Your task to perform on an android device: Search for hotels in San Diego Image 0: 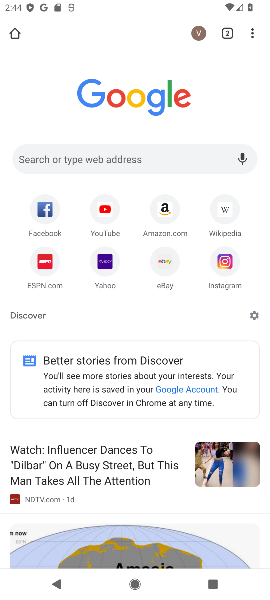
Step 0: press home button
Your task to perform on an android device: Search for hotels in San Diego Image 1: 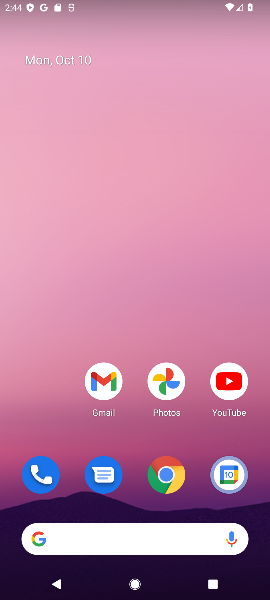
Step 1: drag from (152, 528) to (248, 39)
Your task to perform on an android device: Search for hotels in San Diego Image 2: 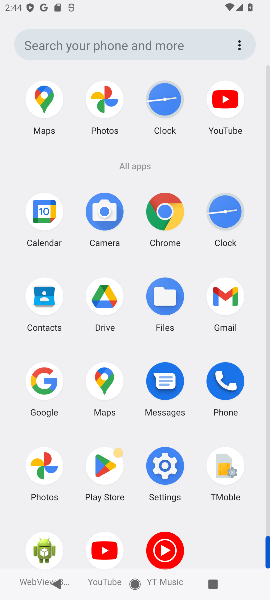
Step 2: click (51, 387)
Your task to perform on an android device: Search for hotels in San Diego Image 3: 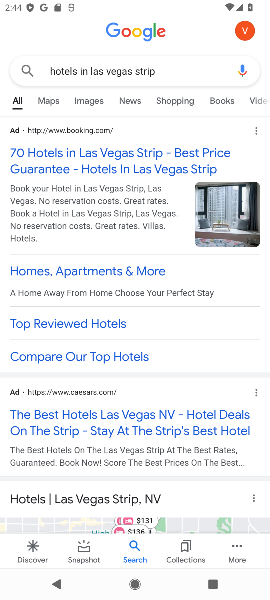
Step 3: click (182, 78)
Your task to perform on an android device: Search for hotels in San Diego Image 4: 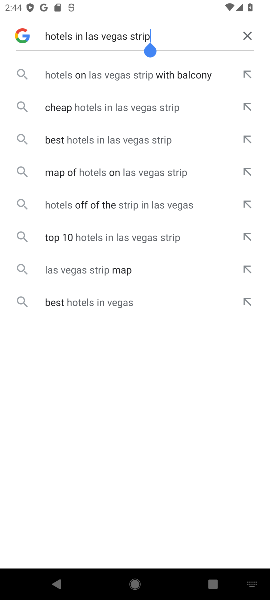
Step 4: click (247, 33)
Your task to perform on an android device: Search for hotels in San Diego Image 5: 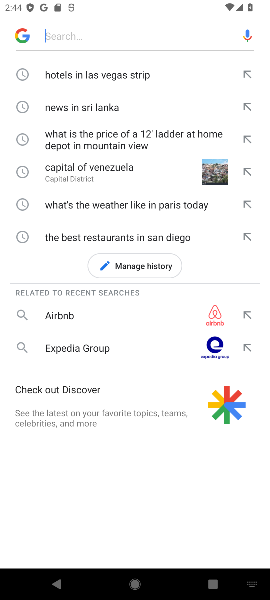
Step 5: type "hotels in San Diego"
Your task to perform on an android device: Search for hotels in San Diego Image 6: 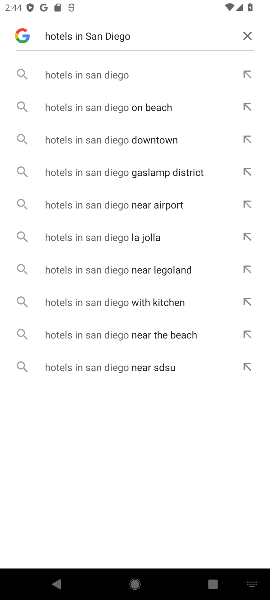
Step 6: click (152, 74)
Your task to perform on an android device: Search for hotels in San Diego Image 7: 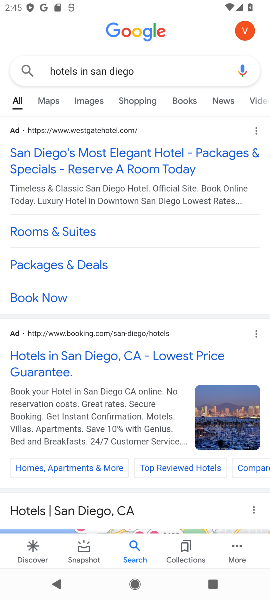
Step 7: task complete